Your task to perform on an android device: Turn on the flashlight Image 0: 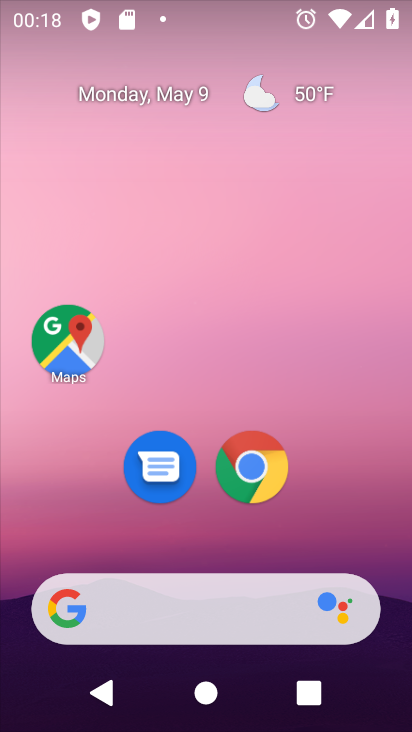
Step 0: drag from (216, 545) to (254, 114)
Your task to perform on an android device: Turn on the flashlight Image 1: 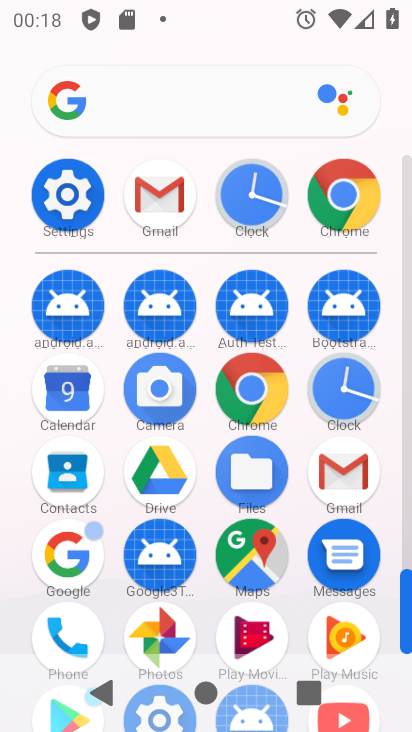
Step 1: click (63, 186)
Your task to perform on an android device: Turn on the flashlight Image 2: 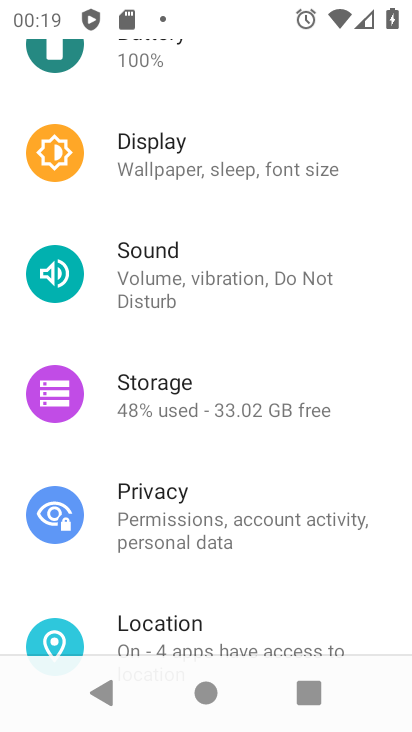
Step 2: drag from (190, 119) to (225, 689)
Your task to perform on an android device: Turn on the flashlight Image 3: 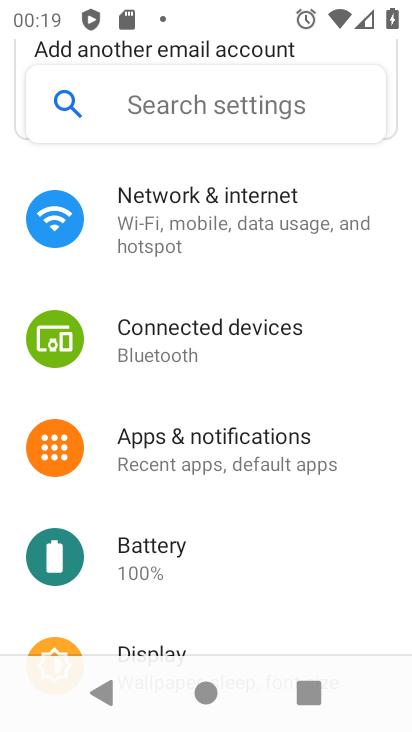
Step 3: click (162, 95)
Your task to perform on an android device: Turn on the flashlight Image 4: 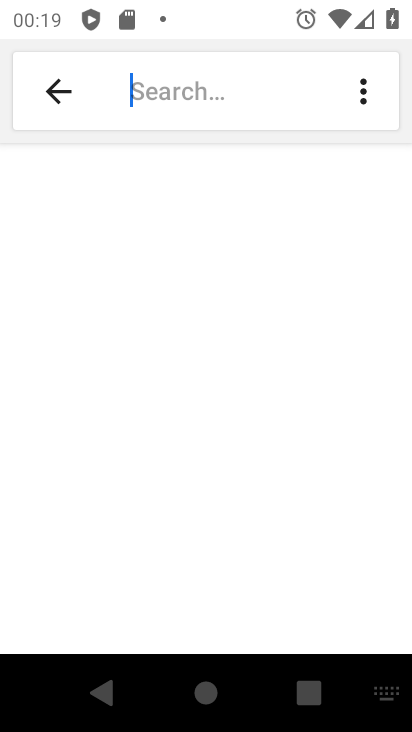
Step 4: type "flashlight"
Your task to perform on an android device: Turn on the flashlight Image 5: 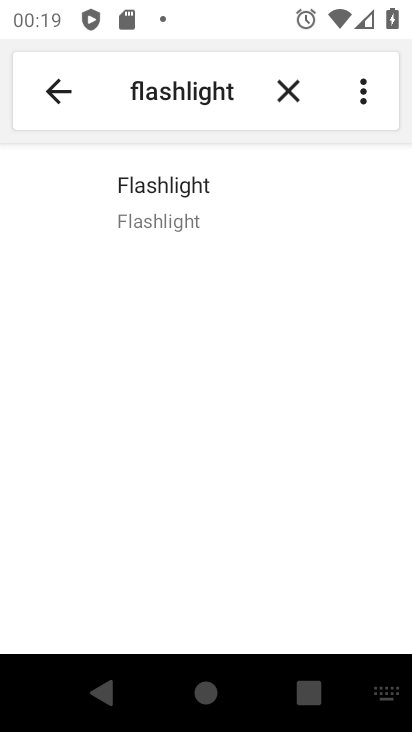
Step 5: click (182, 202)
Your task to perform on an android device: Turn on the flashlight Image 6: 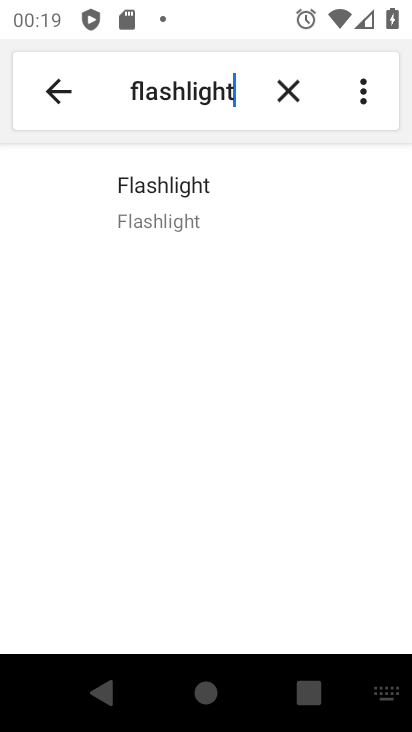
Step 6: click (179, 200)
Your task to perform on an android device: Turn on the flashlight Image 7: 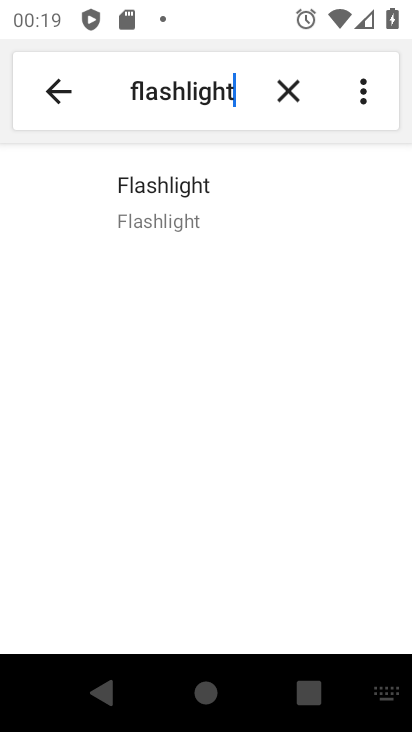
Step 7: task complete